Your task to perform on an android device: turn off location history Image 0: 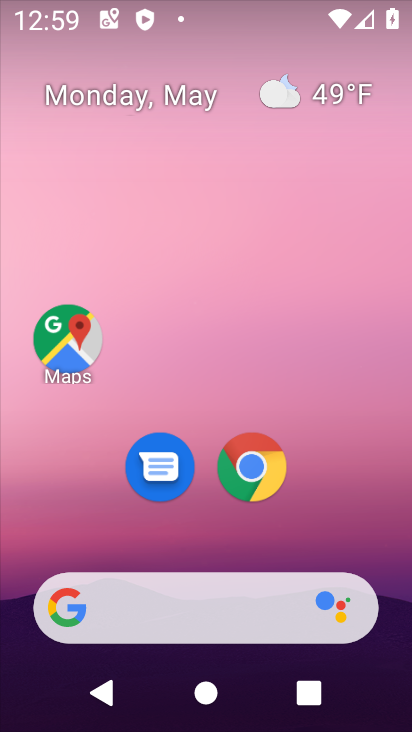
Step 0: drag from (358, 510) to (335, 93)
Your task to perform on an android device: turn off location history Image 1: 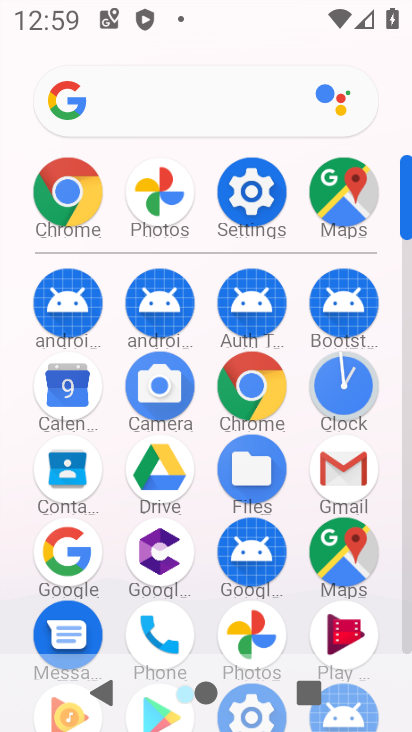
Step 1: click (260, 209)
Your task to perform on an android device: turn off location history Image 2: 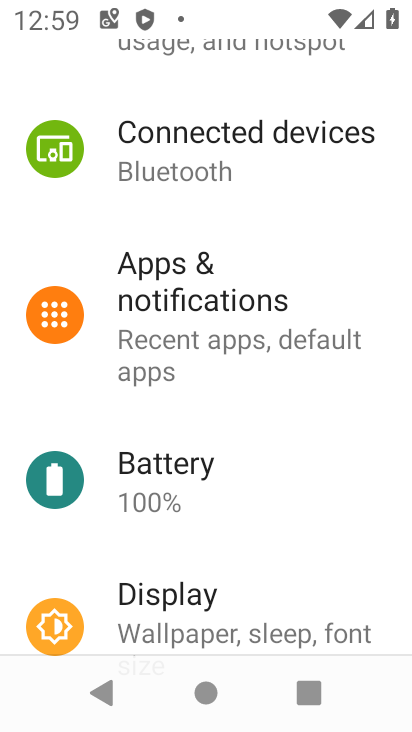
Step 2: drag from (251, 533) to (282, 202)
Your task to perform on an android device: turn off location history Image 3: 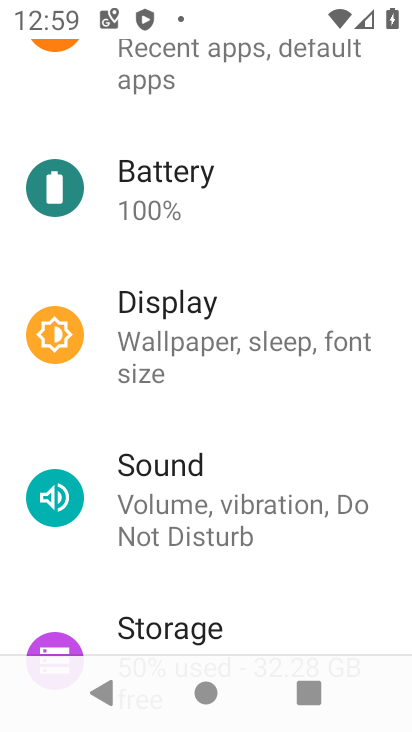
Step 3: drag from (295, 553) to (284, 215)
Your task to perform on an android device: turn off location history Image 4: 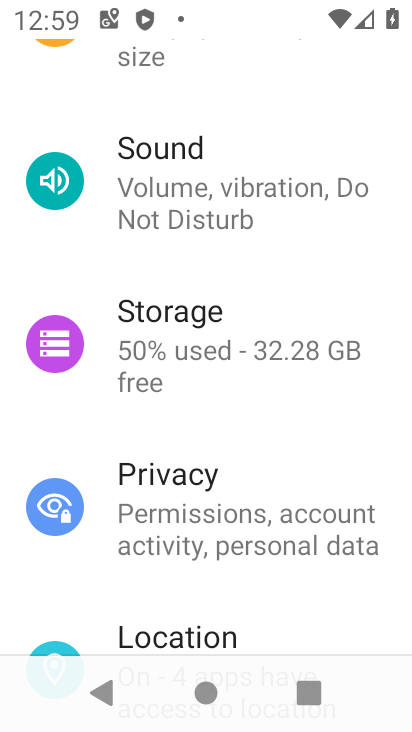
Step 4: drag from (288, 604) to (310, 361)
Your task to perform on an android device: turn off location history Image 5: 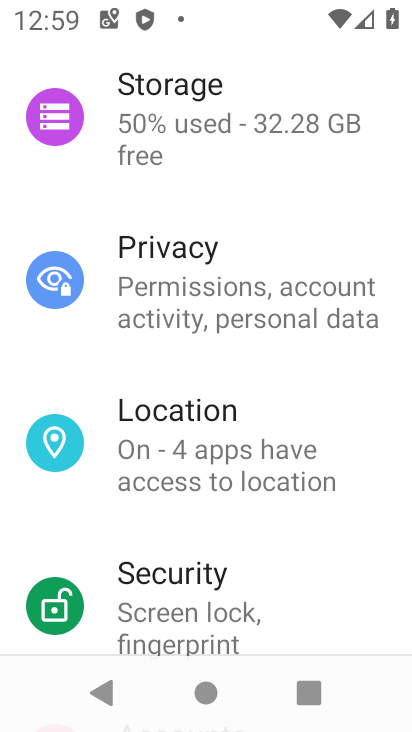
Step 5: click (238, 458)
Your task to perform on an android device: turn off location history Image 6: 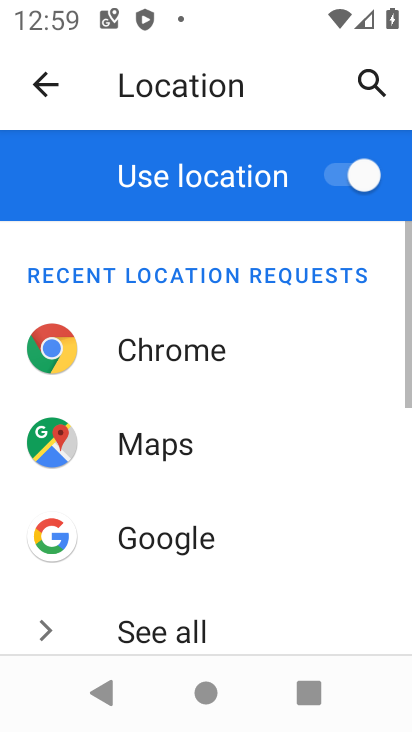
Step 6: drag from (279, 613) to (288, 310)
Your task to perform on an android device: turn off location history Image 7: 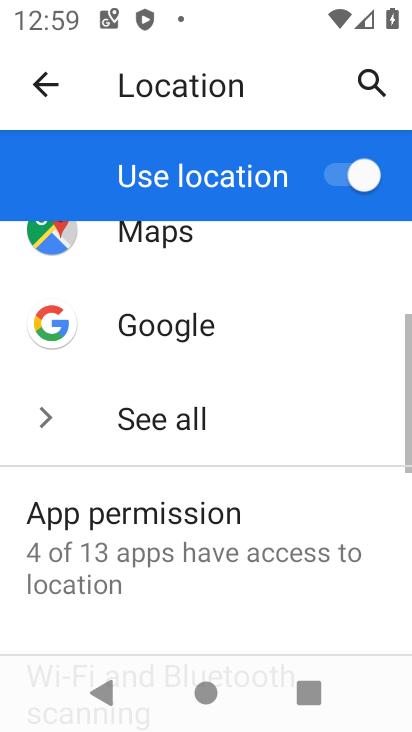
Step 7: drag from (301, 619) to (303, 338)
Your task to perform on an android device: turn off location history Image 8: 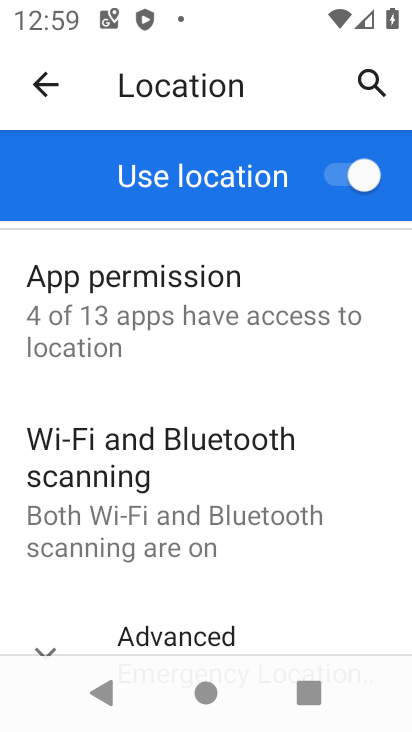
Step 8: drag from (320, 583) to (300, 258)
Your task to perform on an android device: turn off location history Image 9: 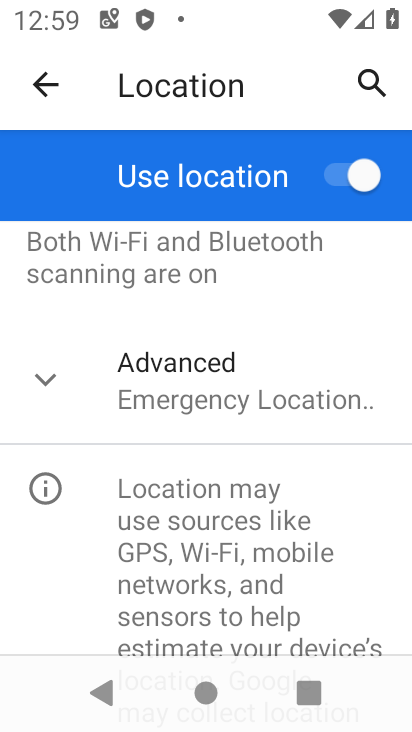
Step 9: click (306, 375)
Your task to perform on an android device: turn off location history Image 10: 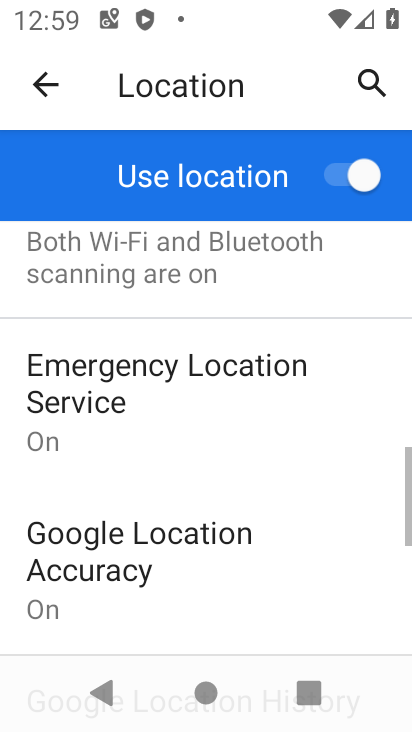
Step 10: drag from (300, 616) to (309, 294)
Your task to perform on an android device: turn off location history Image 11: 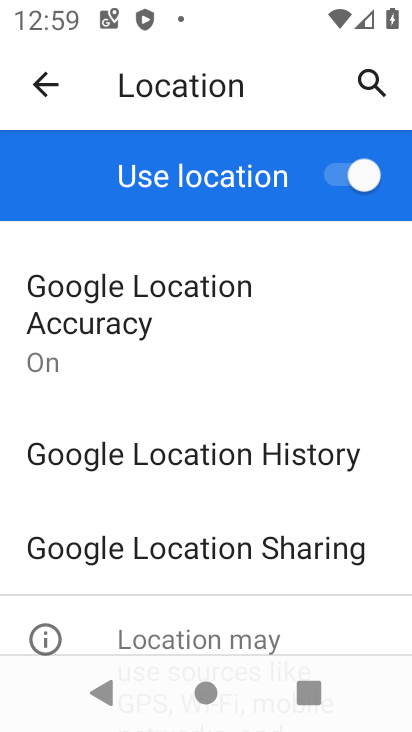
Step 11: click (253, 463)
Your task to perform on an android device: turn off location history Image 12: 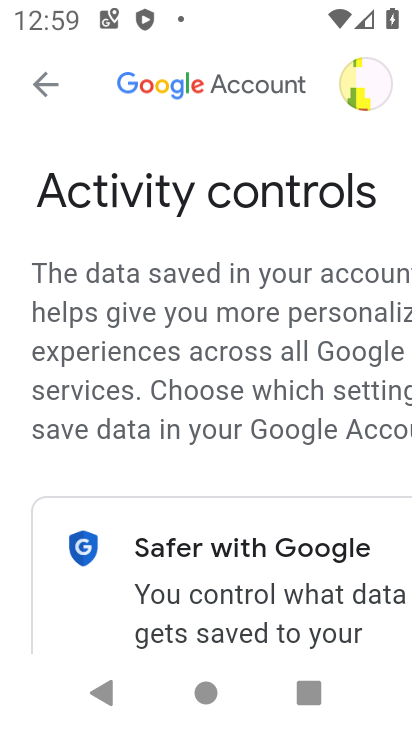
Step 12: drag from (276, 587) to (246, 215)
Your task to perform on an android device: turn off location history Image 13: 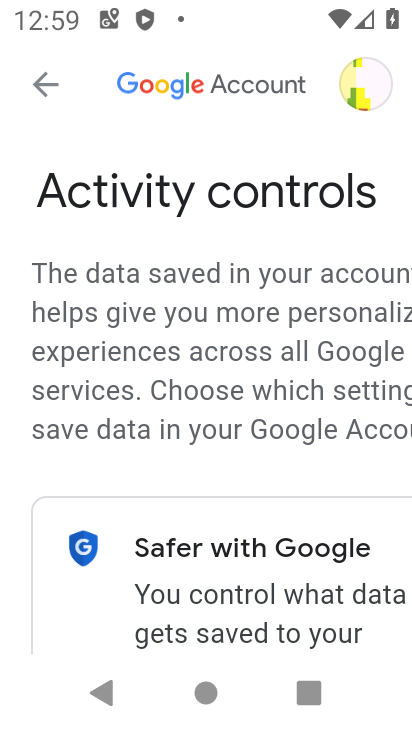
Step 13: drag from (247, 573) to (267, 200)
Your task to perform on an android device: turn off location history Image 14: 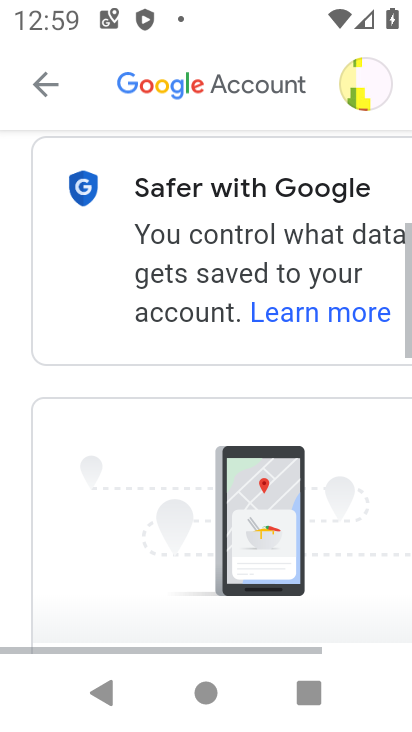
Step 14: drag from (267, 311) to (304, 173)
Your task to perform on an android device: turn off location history Image 15: 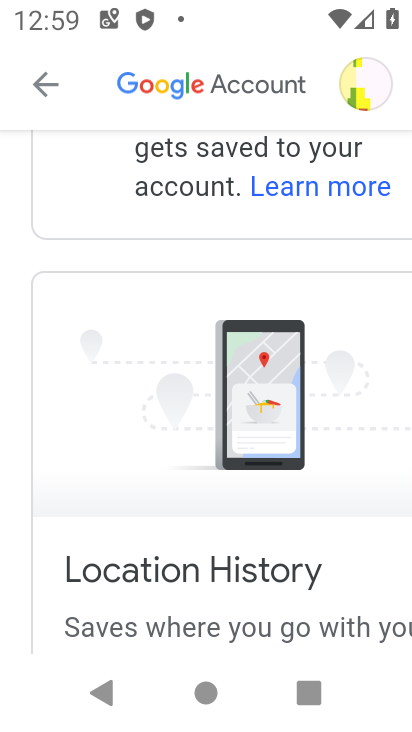
Step 15: drag from (212, 530) to (300, 194)
Your task to perform on an android device: turn off location history Image 16: 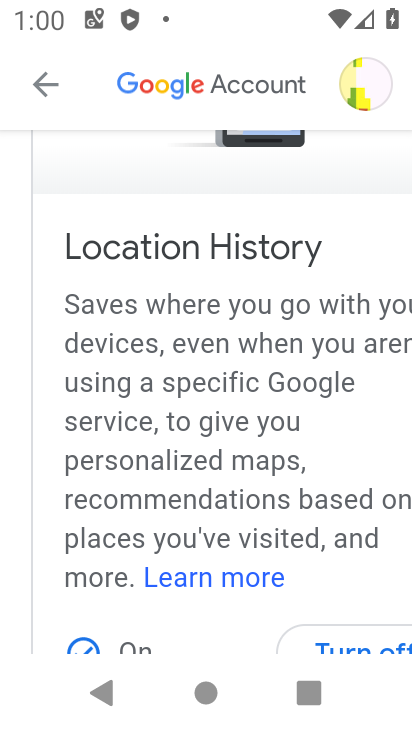
Step 16: drag from (220, 504) to (280, 207)
Your task to perform on an android device: turn off location history Image 17: 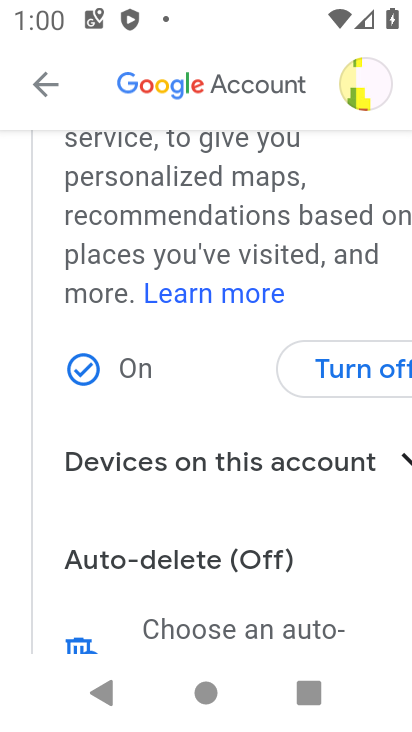
Step 17: click (331, 370)
Your task to perform on an android device: turn off location history Image 18: 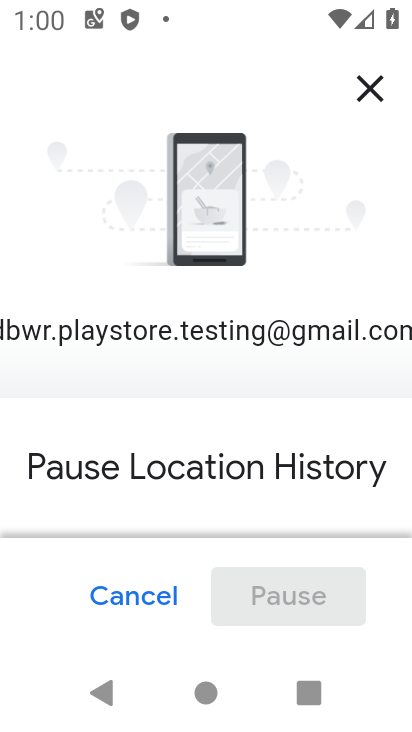
Step 18: drag from (202, 483) to (238, 55)
Your task to perform on an android device: turn off location history Image 19: 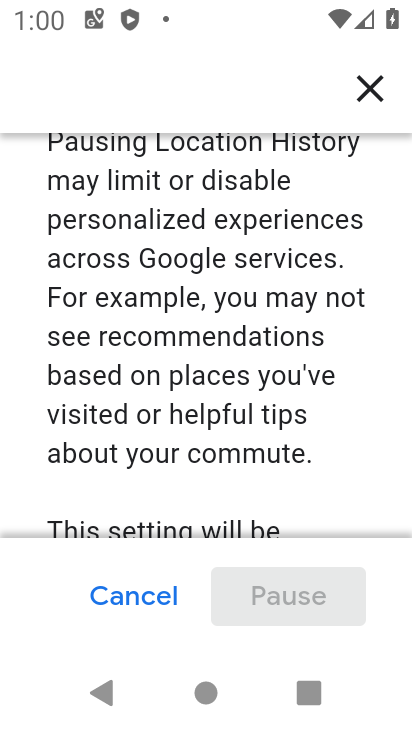
Step 19: drag from (169, 423) to (156, 2)
Your task to perform on an android device: turn off location history Image 20: 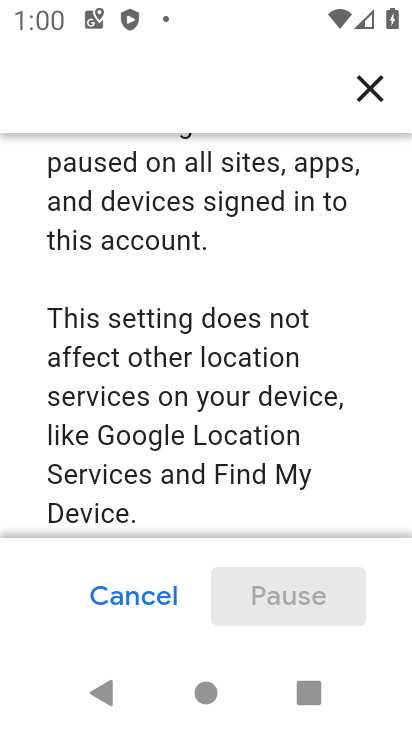
Step 20: drag from (171, 436) to (168, 160)
Your task to perform on an android device: turn off location history Image 21: 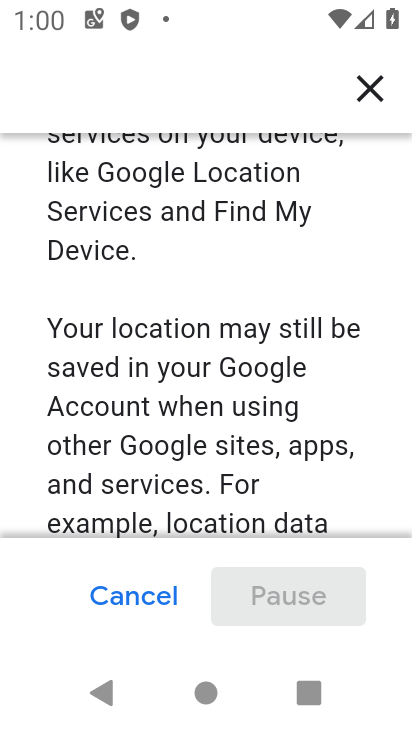
Step 21: drag from (208, 472) to (182, 109)
Your task to perform on an android device: turn off location history Image 22: 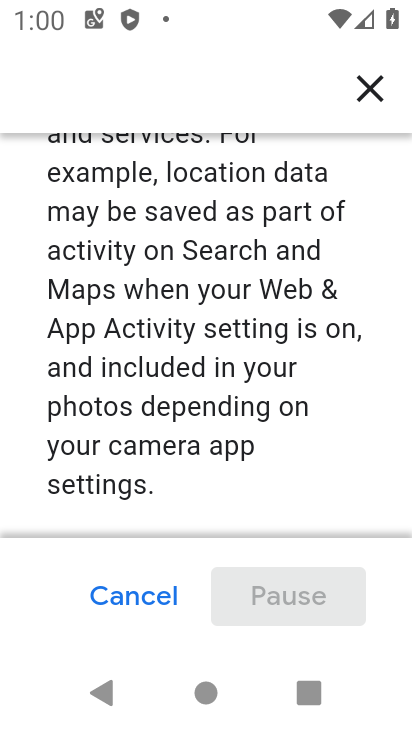
Step 22: drag from (230, 462) to (248, 155)
Your task to perform on an android device: turn off location history Image 23: 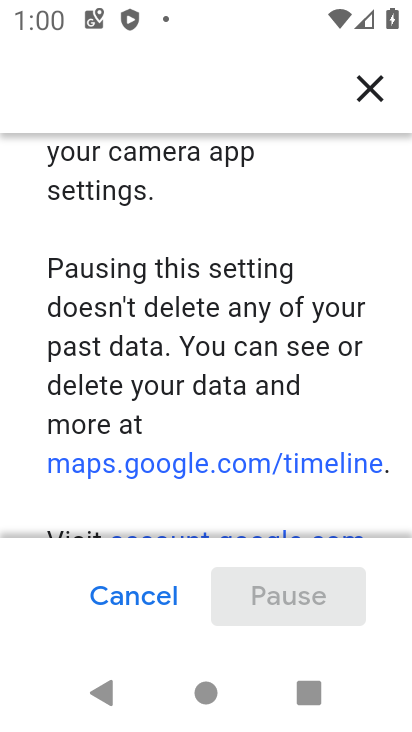
Step 23: drag from (260, 526) to (260, 71)
Your task to perform on an android device: turn off location history Image 24: 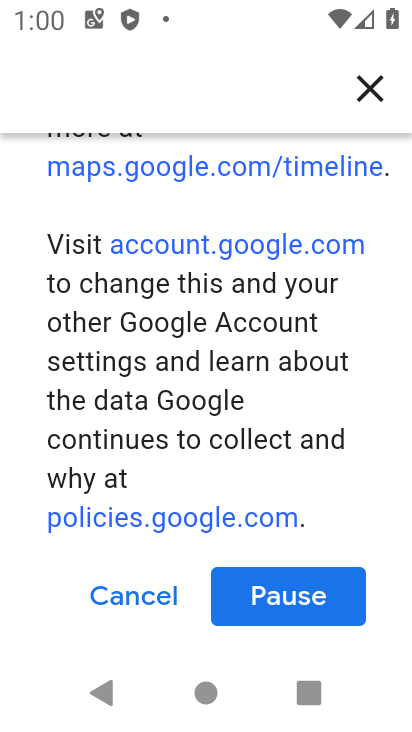
Step 24: click (281, 604)
Your task to perform on an android device: turn off location history Image 25: 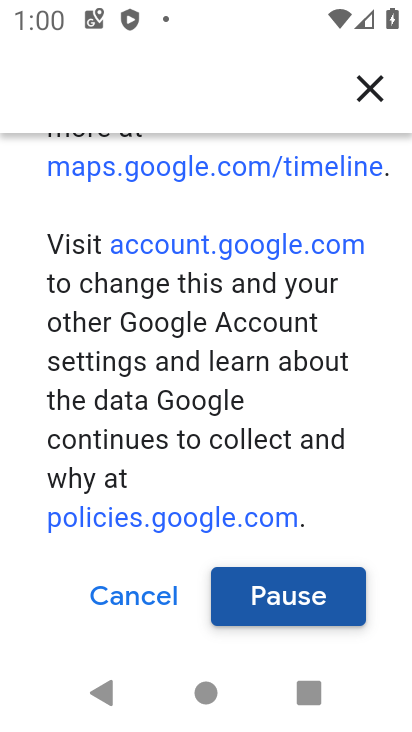
Step 25: click (280, 601)
Your task to perform on an android device: turn off location history Image 26: 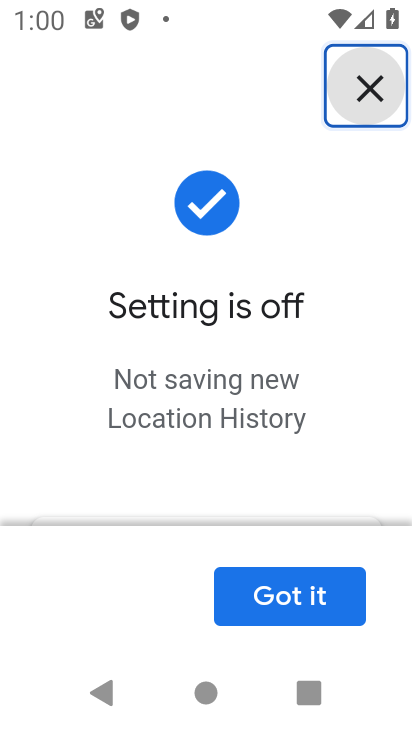
Step 26: task complete